Your task to perform on an android device: install app "Messages" Image 0: 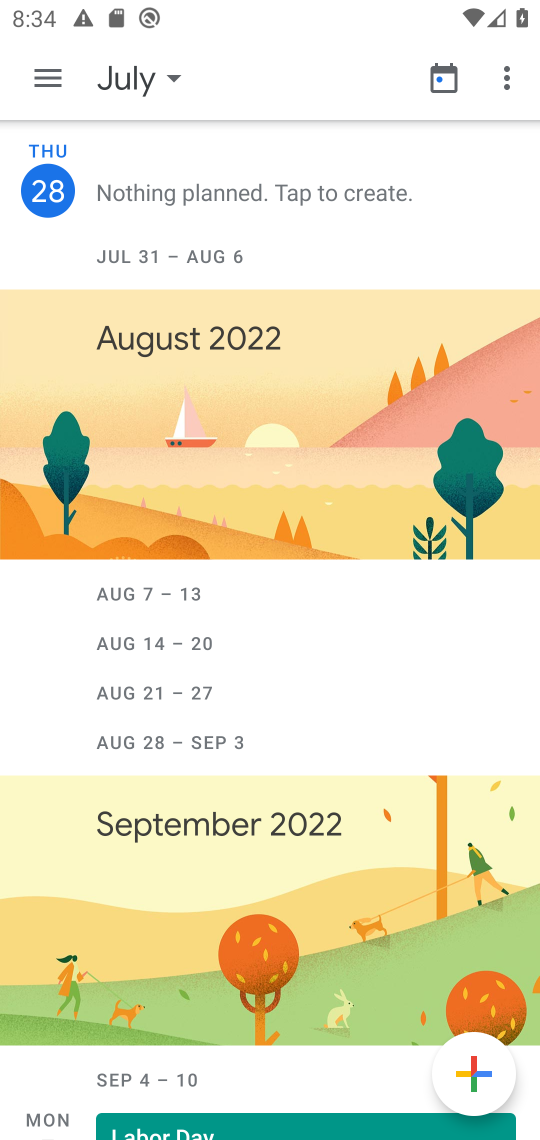
Step 0: press home button
Your task to perform on an android device: install app "Messages" Image 1: 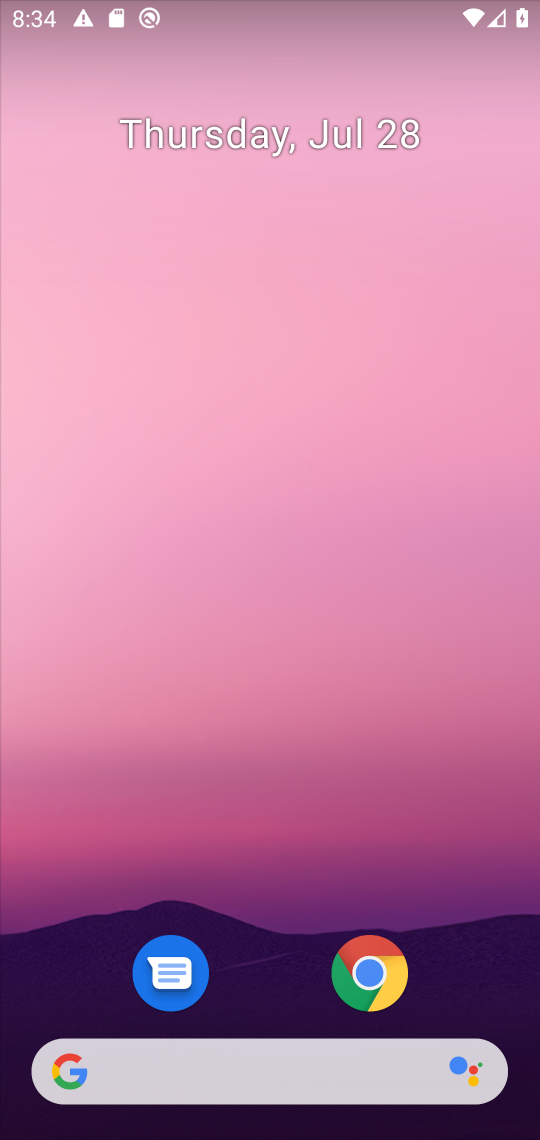
Step 1: task complete